Your task to perform on an android device: Clear the cart on newegg.com. Image 0: 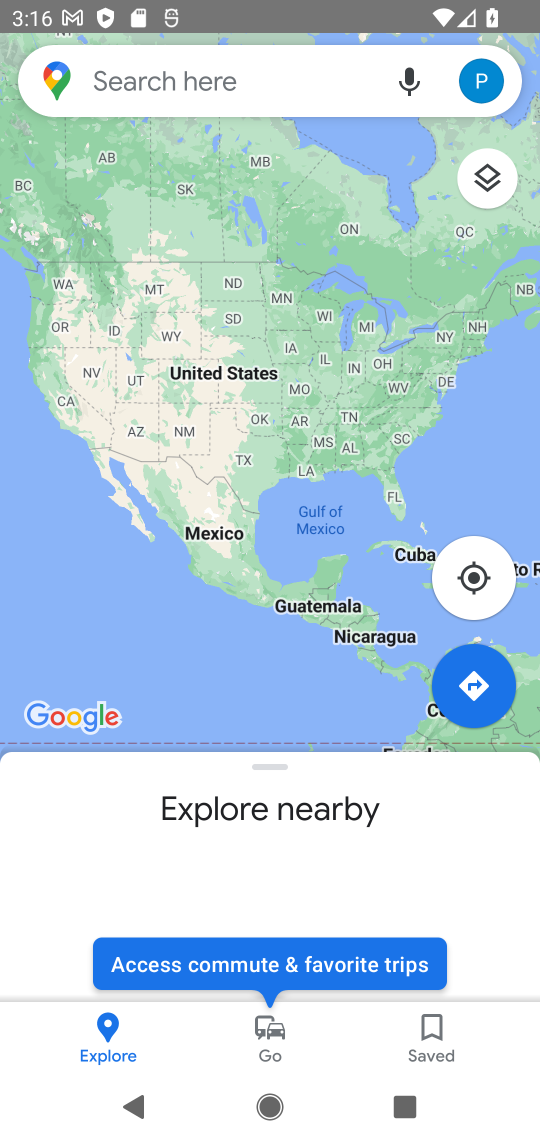
Step 0: press home button
Your task to perform on an android device: Clear the cart on newegg.com. Image 1: 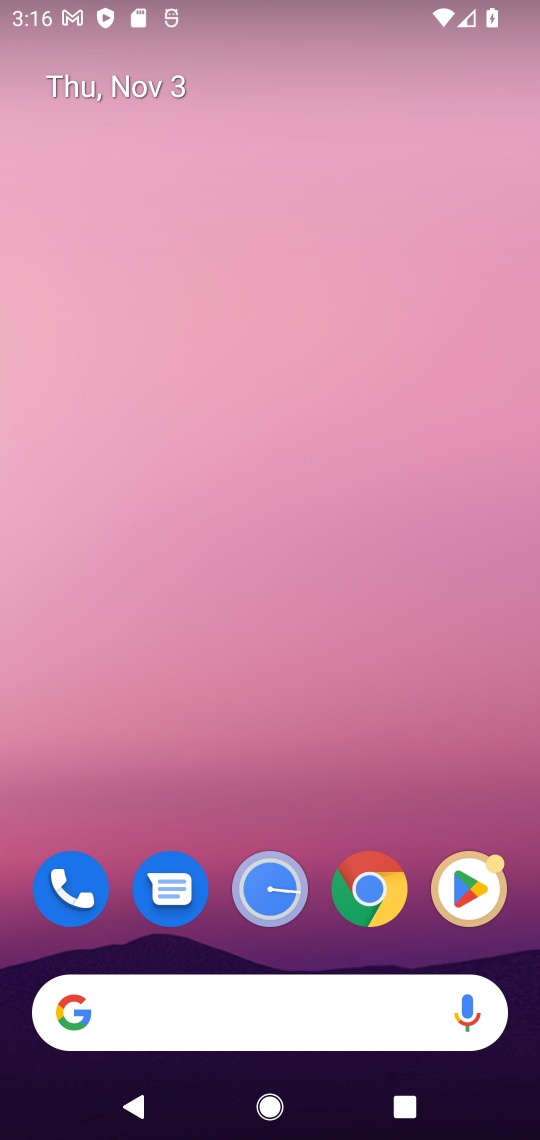
Step 1: click (74, 1010)
Your task to perform on an android device: Clear the cart on newegg.com. Image 2: 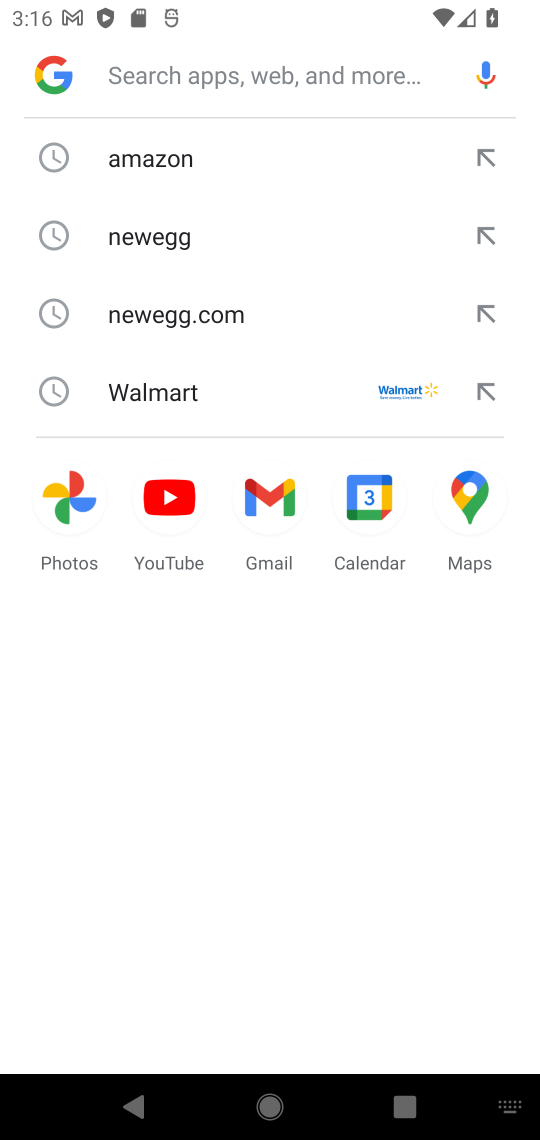
Step 2: click (162, 232)
Your task to perform on an android device: Clear the cart on newegg.com. Image 3: 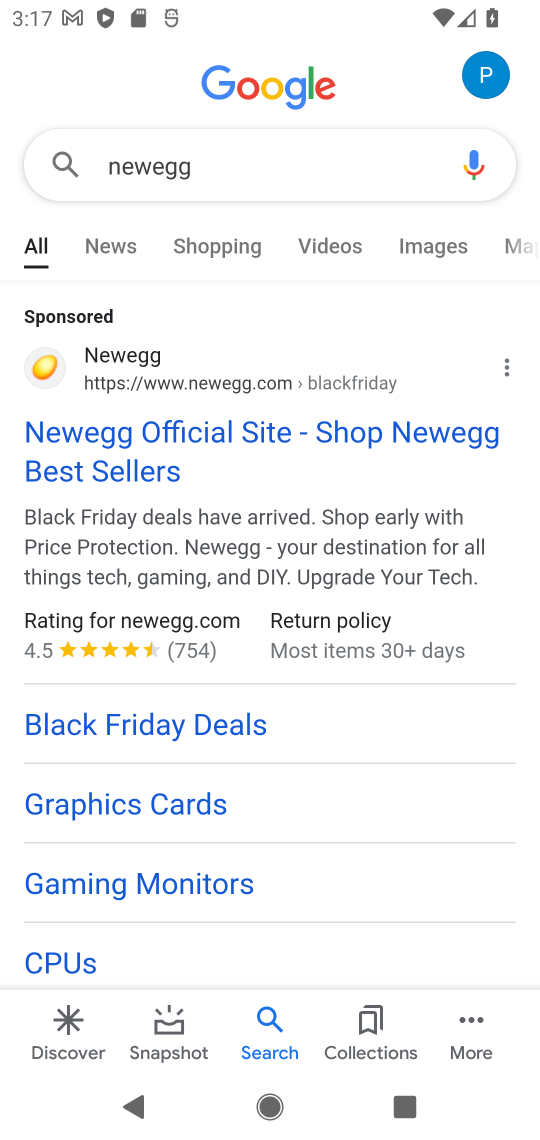
Step 3: click (95, 440)
Your task to perform on an android device: Clear the cart on newegg.com. Image 4: 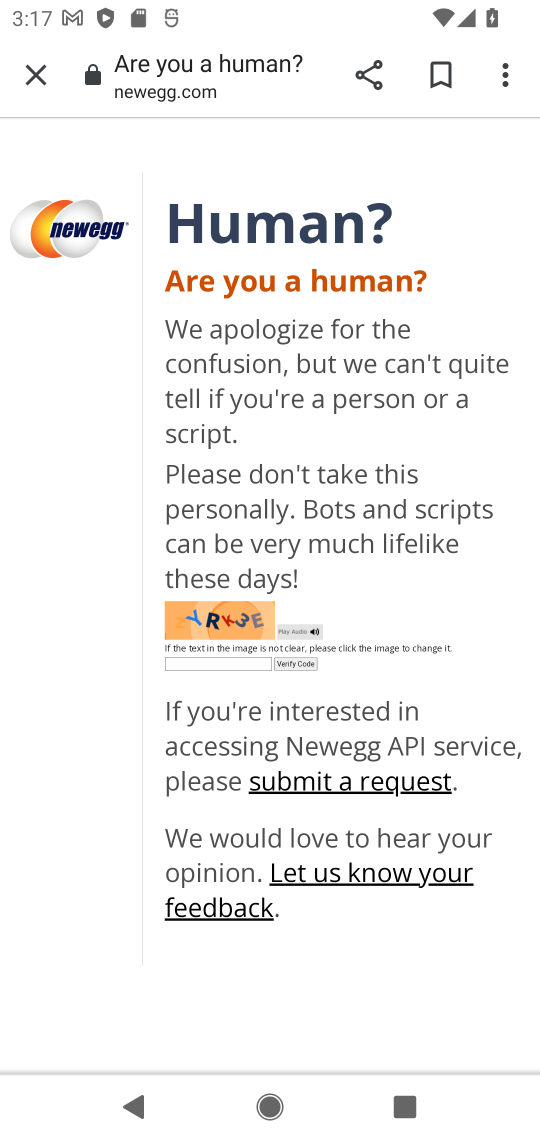
Step 4: task complete